Your task to perform on an android device: open chrome privacy settings Image 0: 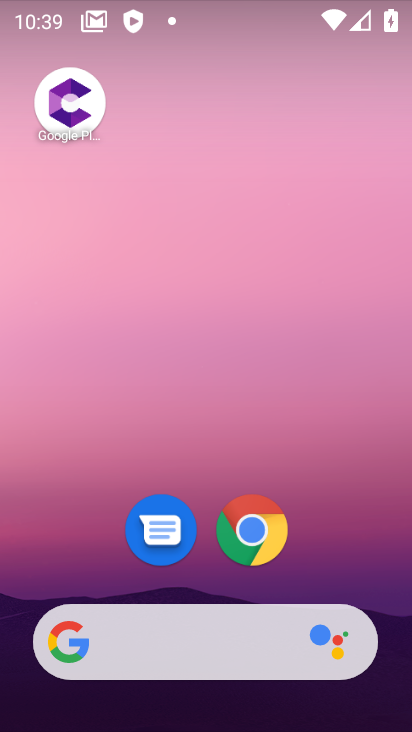
Step 0: click (264, 524)
Your task to perform on an android device: open chrome privacy settings Image 1: 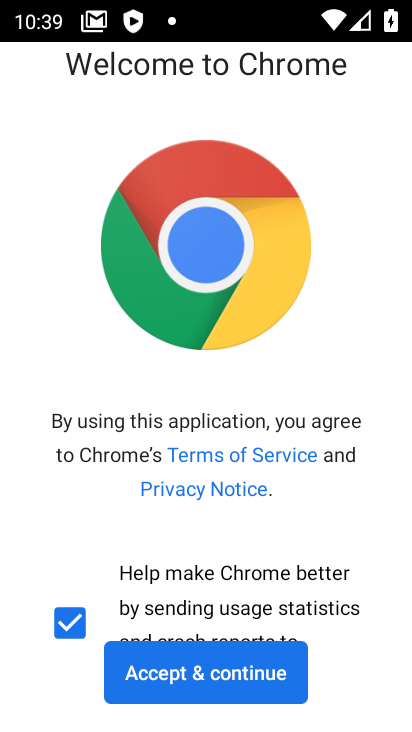
Step 1: click (204, 683)
Your task to perform on an android device: open chrome privacy settings Image 2: 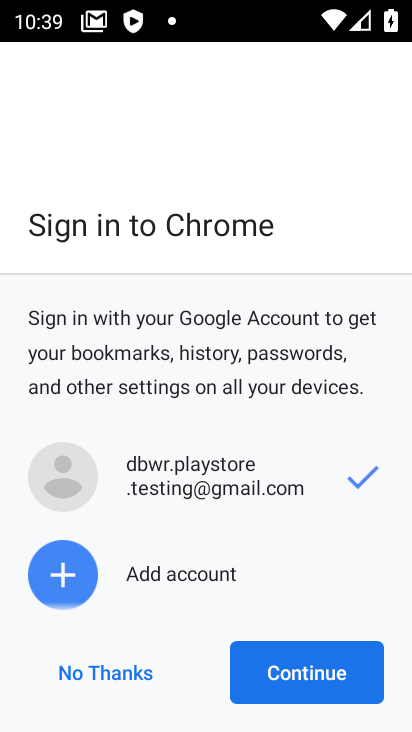
Step 2: click (308, 670)
Your task to perform on an android device: open chrome privacy settings Image 3: 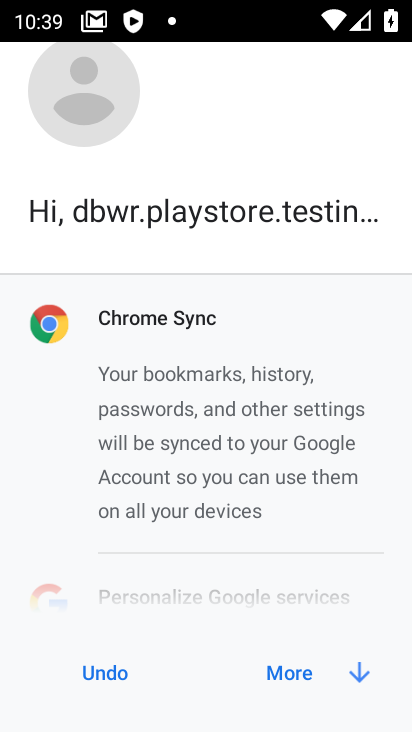
Step 3: click (308, 670)
Your task to perform on an android device: open chrome privacy settings Image 4: 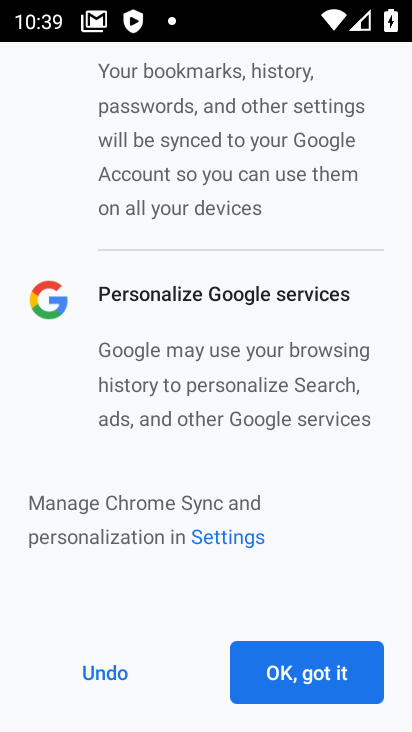
Step 4: click (308, 670)
Your task to perform on an android device: open chrome privacy settings Image 5: 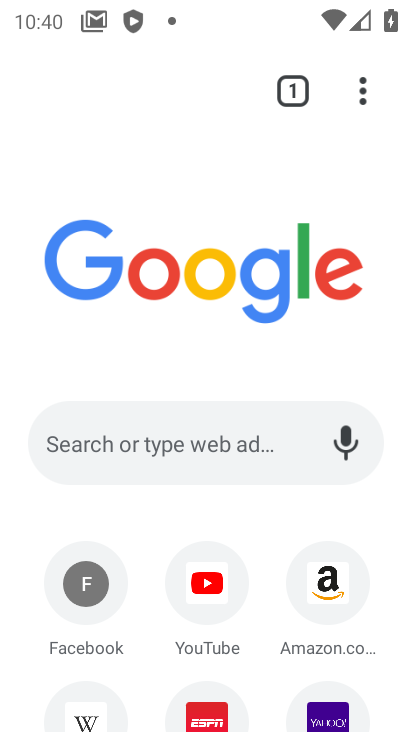
Step 5: click (360, 88)
Your task to perform on an android device: open chrome privacy settings Image 6: 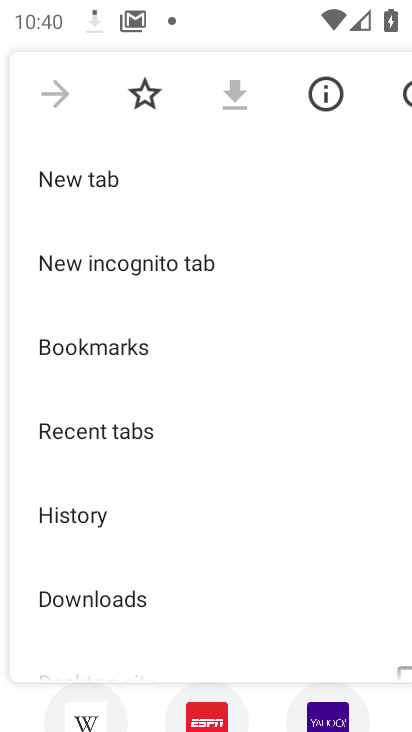
Step 6: drag from (85, 564) to (112, 326)
Your task to perform on an android device: open chrome privacy settings Image 7: 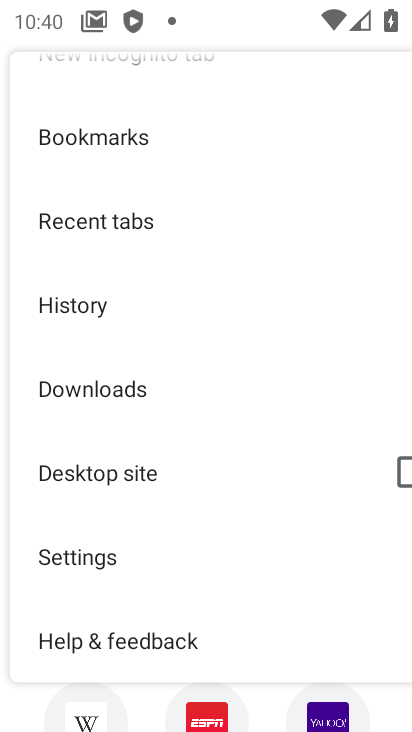
Step 7: click (83, 547)
Your task to perform on an android device: open chrome privacy settings Image 8: 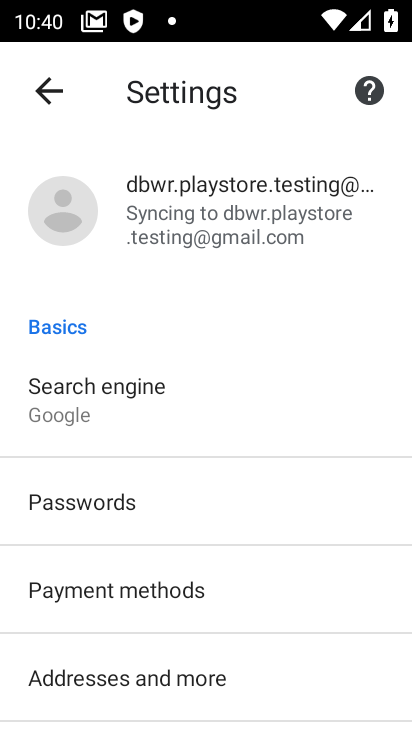
Step 8: drag from (83, 547) to (115, 295)
Your task to perform on an android device: open chrome privacy settings Image 9: 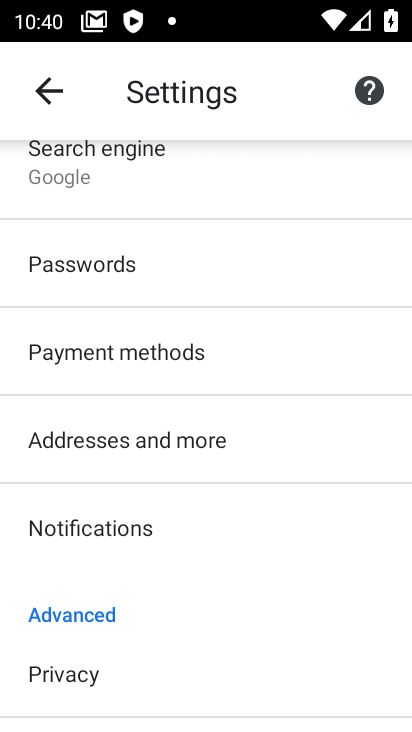
Step 9: drag from (82, 576) to (135, 240)
Your task to perform on an android device: open chrome privacy settings Image 10: 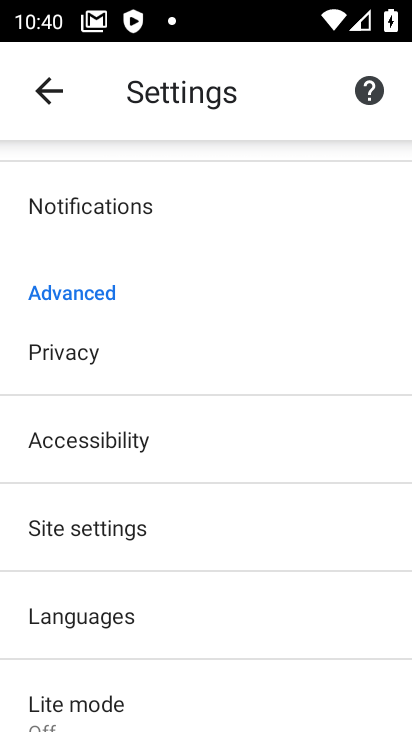
Step 10: click (68, 352)
Your task to perform on an android device: open chrome privacy settings Image 11: 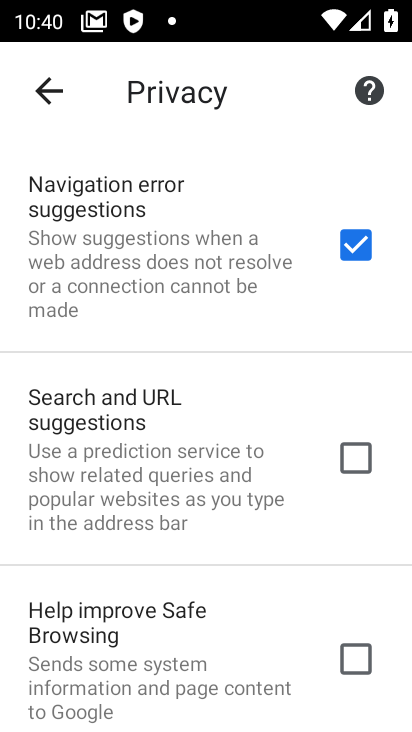
Step 11: task complete